Your task to perform on an android device: Open settings Image 0: 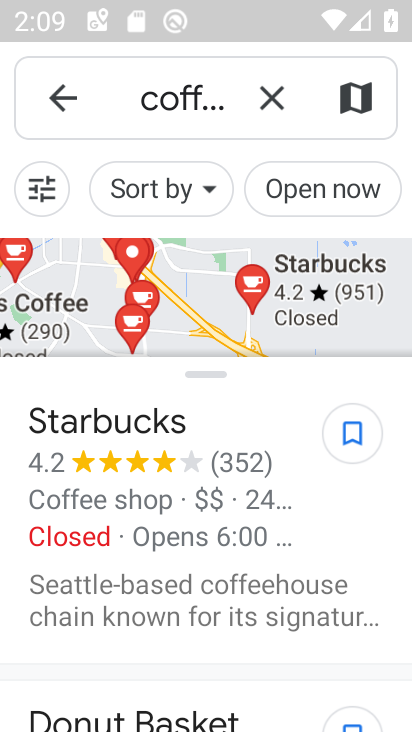
Step 0: press home button
Your task to perform on an android device: Open settings Image 1: 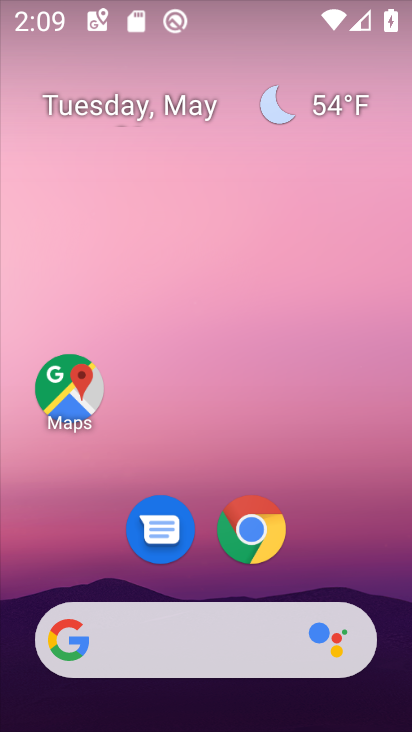
Step 1: drag from (203, 549) to (235, 225)
Your task to perform on an android device: Open settings Image 2: 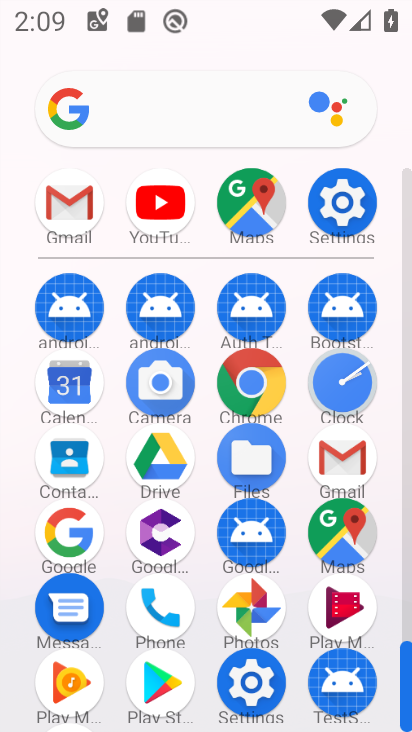
Step 2: click (351, 192)
Your task to perform on an android device: Open settings Image 3: 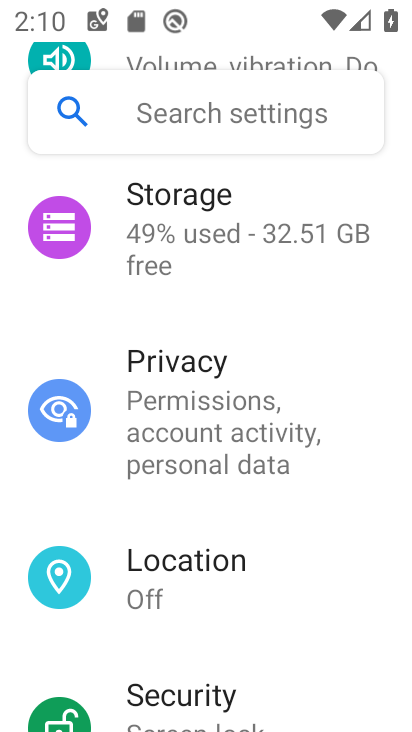
Step 3: task complete